Your task to perform on an android device: Open calendar and show me the fourth week of next month Image 0: 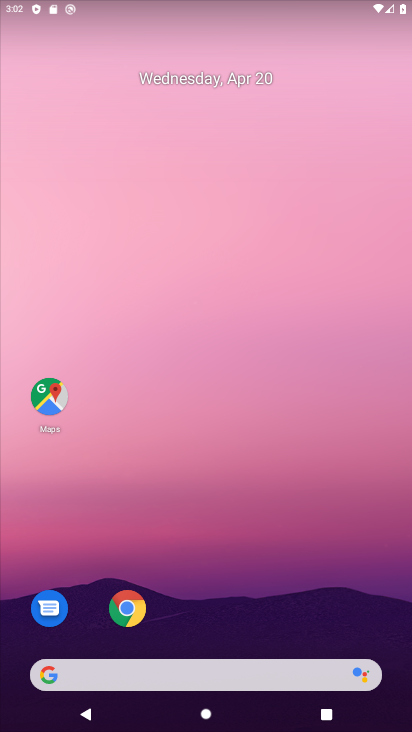
Step 0: drag from (206, 511) to (206, 83)
Your task to perform on an android device: Open calendar and show me the fourth week of next month Image 1: 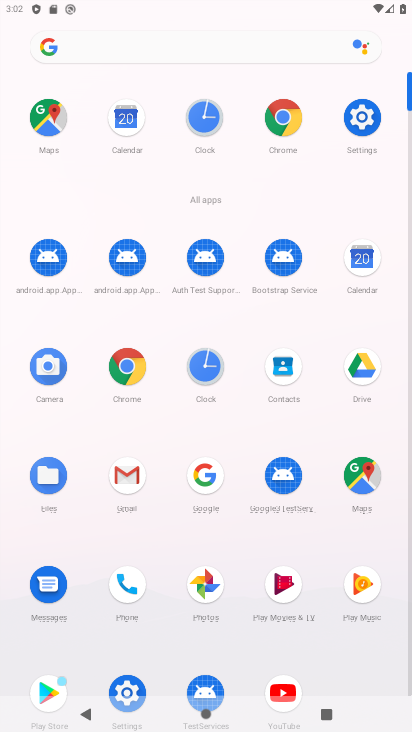
Step 1: click (362, 251)
Your task to perform on an android device: Open calendar and show me the fourth week of next month Image 2: 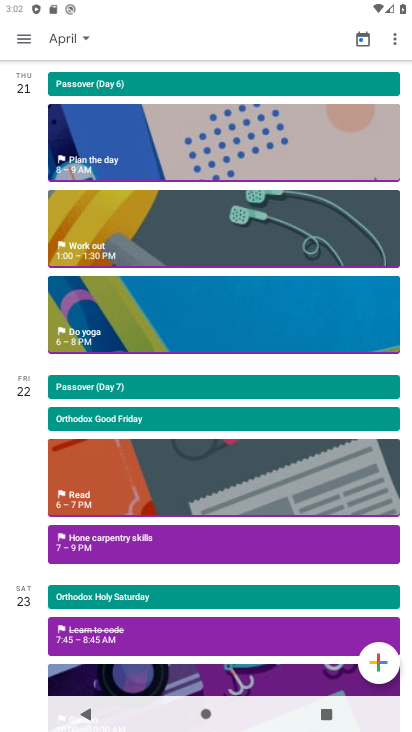
Step 2: click (23, 38)
Your task to perform on an android device: Open calendar and show me the fourth week of next month Image 3: 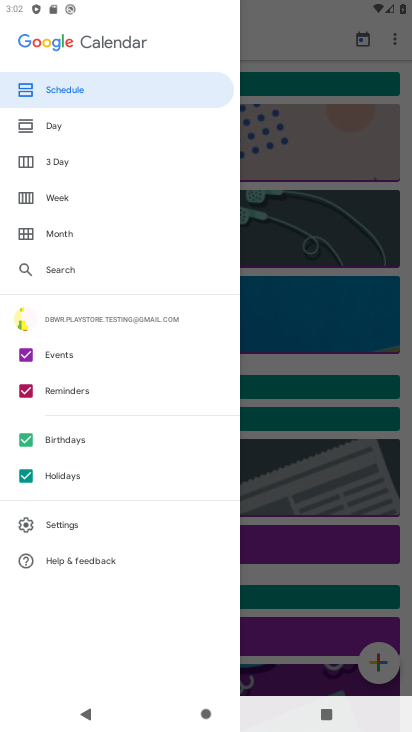
Step 3: click (50, 187)
Your task to perform on an android device: Open calendar and show me the fourth week of next month Image 4: 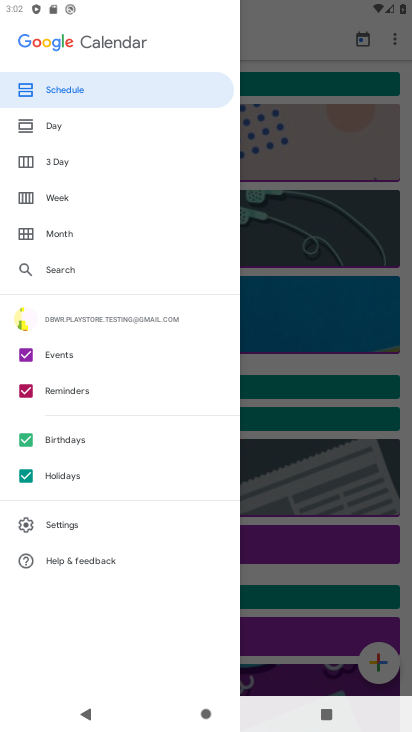
Step 4: click (24, 193)
Your task to perform on an android device: Open calendar and show me the fourth week of next month Image 5: 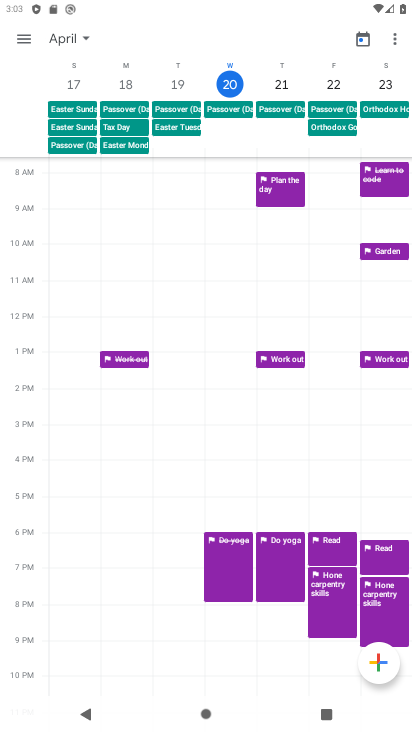
Step 5: task complete